Your task to perform on an android device: Open sound settings Image 0: 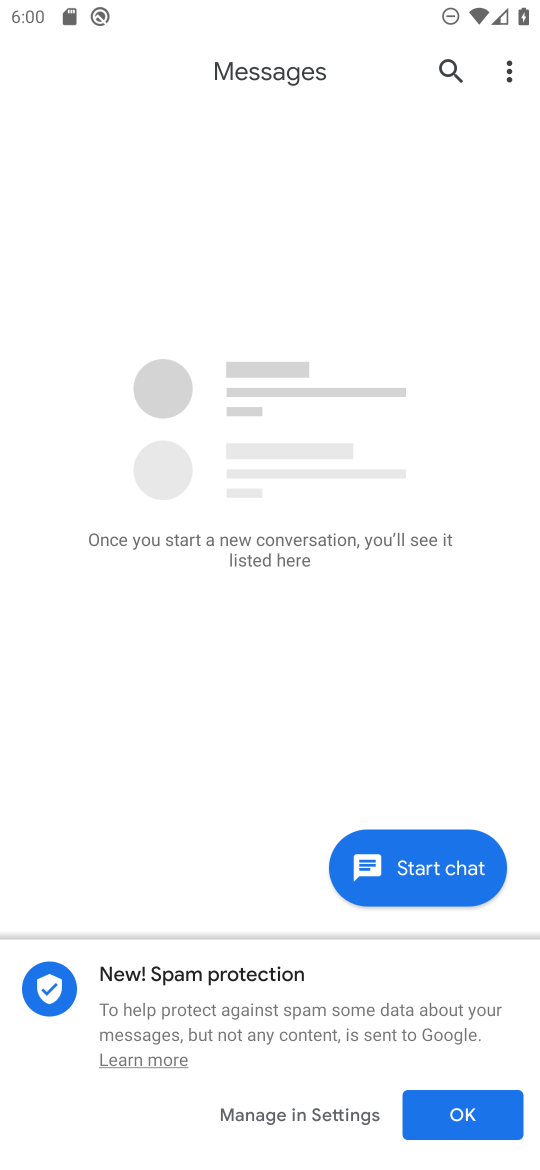
Step 0: press back button
Your task to perform on an android device: Open sound settings Image 1: 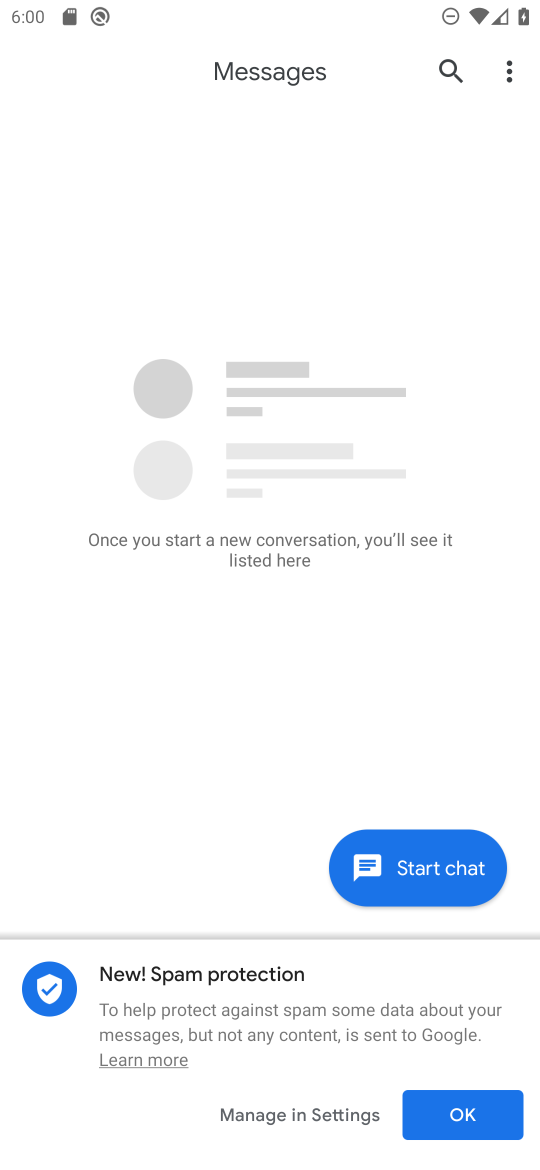
Step 1: press home button
Your task to perform on an android device: Open sound settings Image 2: 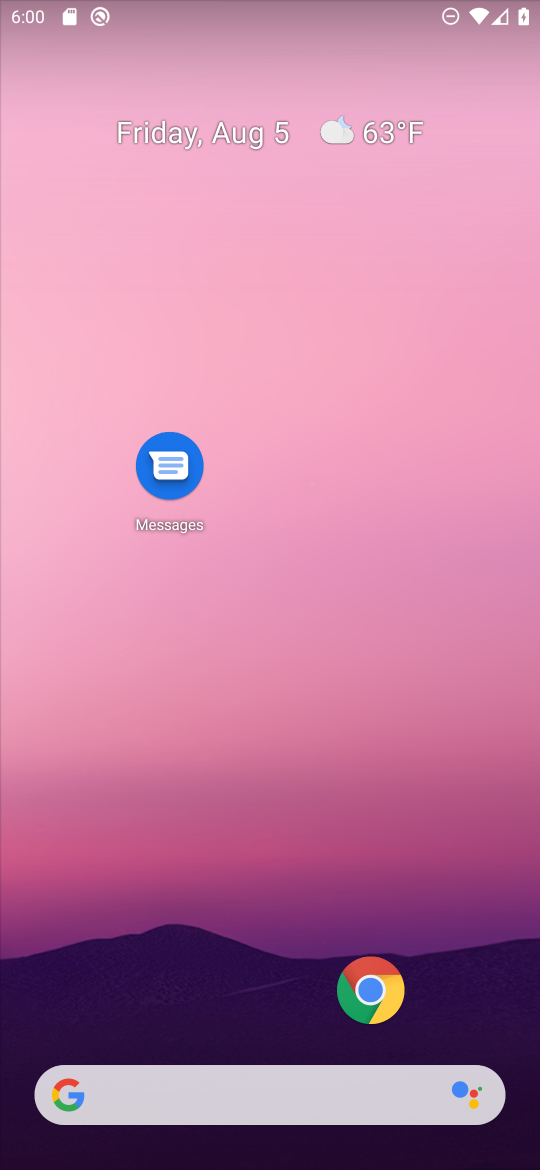
Step 2: drag from (272, 1048) to (176, 427)
Your task to perform on an android device: Open sound settings Image 3: 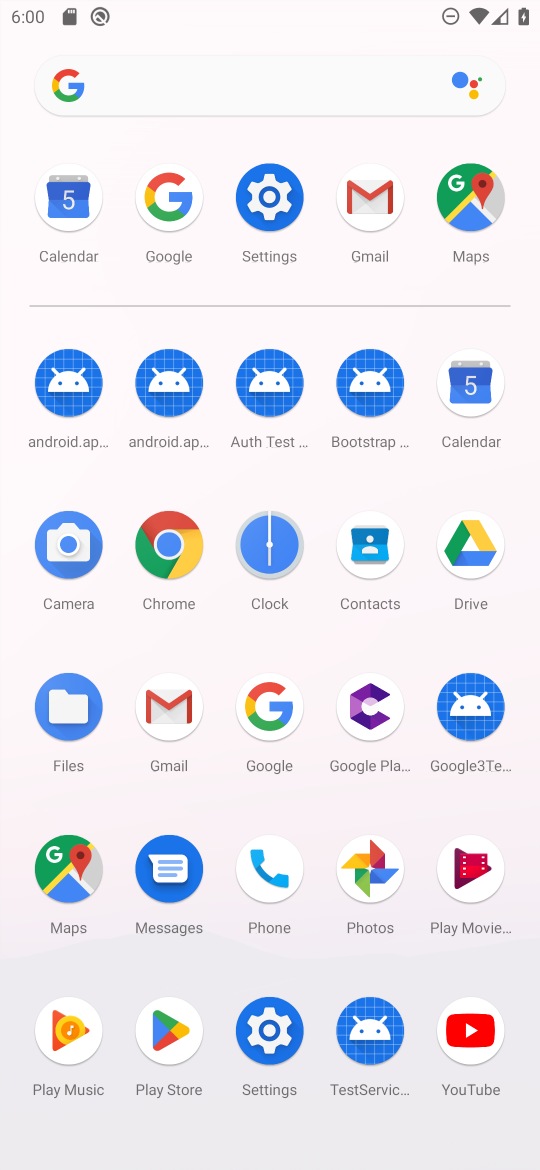
Step 3: click (246, 1061)
Your task to perform on an android device: Open sound settings Image 4: 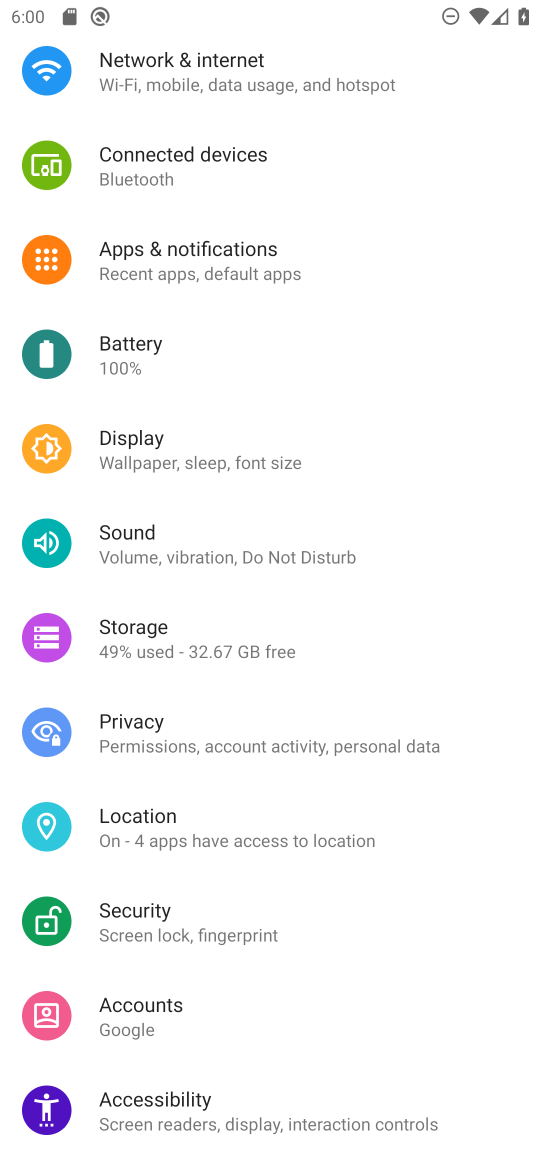
Step 4: click (128, 534)
Your task to perform on an android device: Open sound settings Image 5: 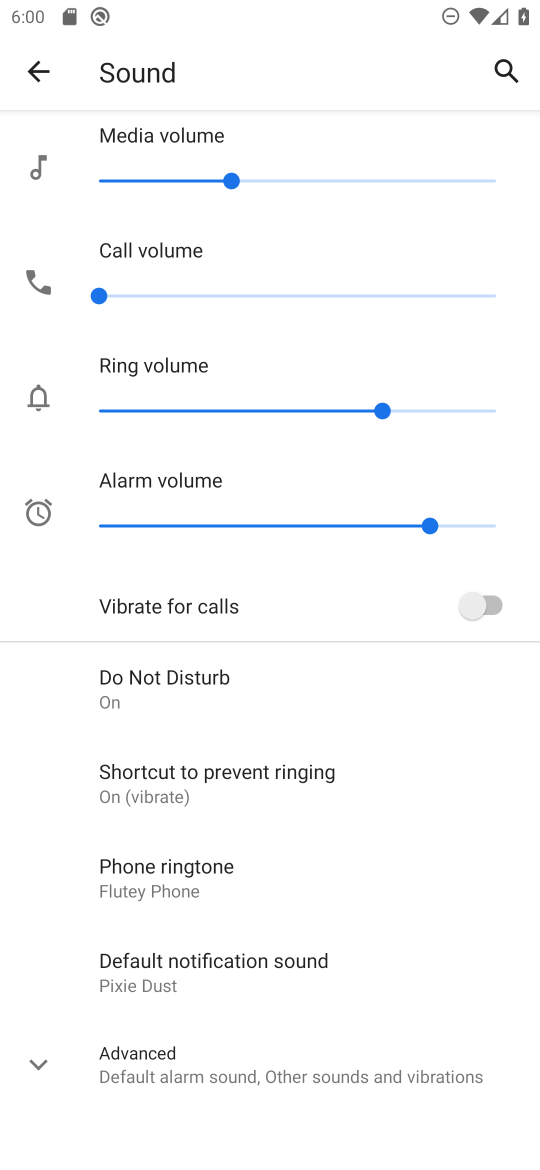
Step 5: task complete